Your task to perform on an android device: delete browsing data in the chrome app Image 0: 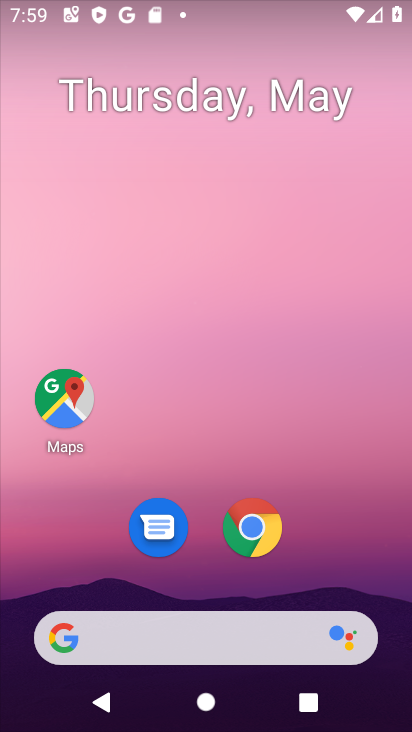
Step 0: click (247, 518)
Your task to perform on an android device: delete browsing data in the chrome app Image 1: 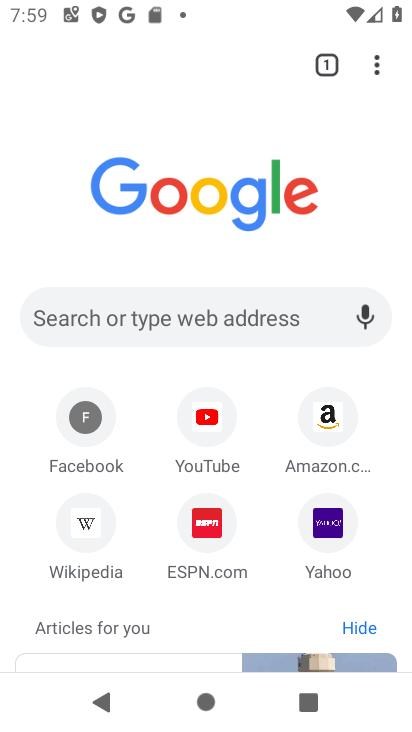
Step 1: click (385, 64)
Your task to perform on an android device: delete browsing data in the chrome app Image 2: 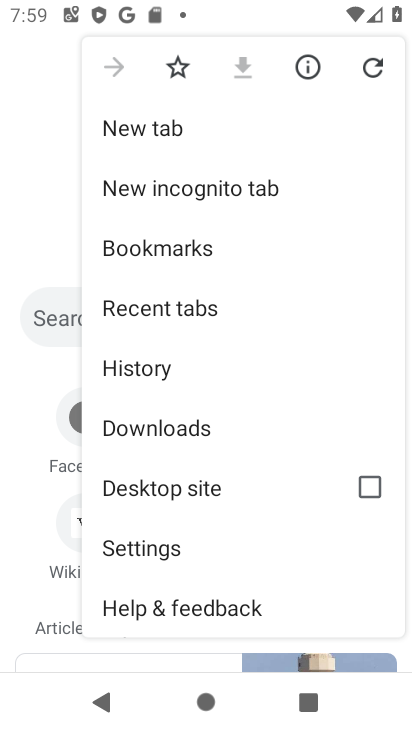
Step 2: click (139, 360)
Your task to perform on an android device: delete browsing data in the chrome app Image 3: 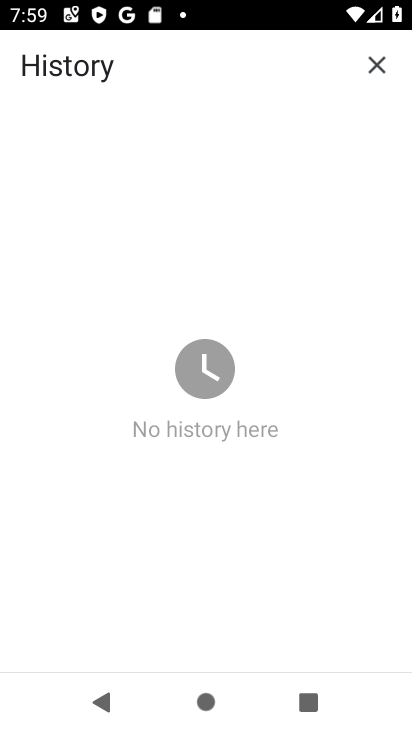
Step 3: task complete